Your task to perform on an android device: see tabs open on other devices in the chrome app Image 0: 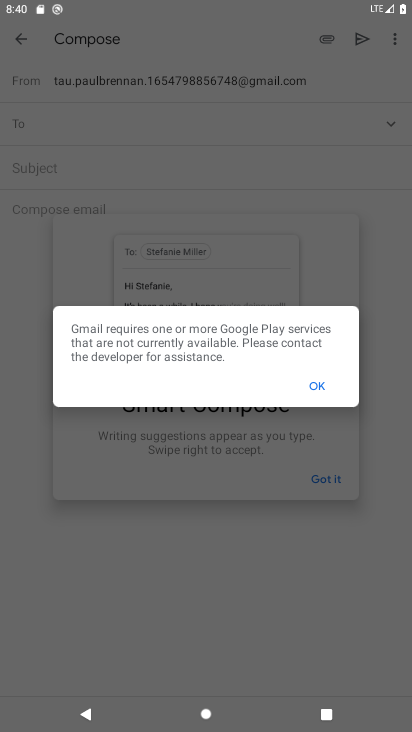
Step 0: press home button
Your task to perform on an android device: see tabs open on other devices in the chrome app Image 1: 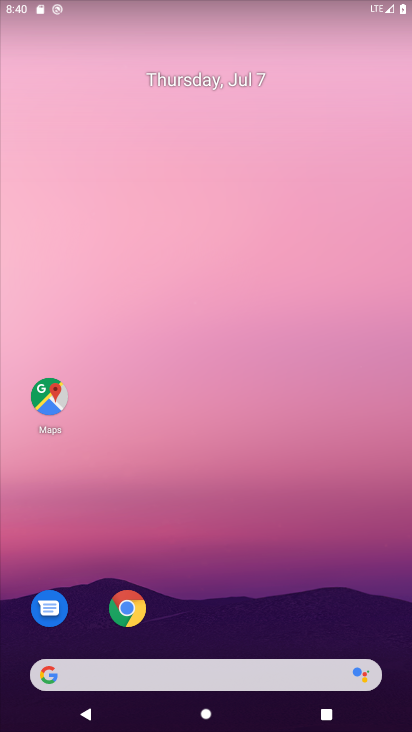
Step 1: drag from (369, 600) to (356, 142)
Your task to perform on an android device: see tabs open on other devices in the chrome app Image 2: 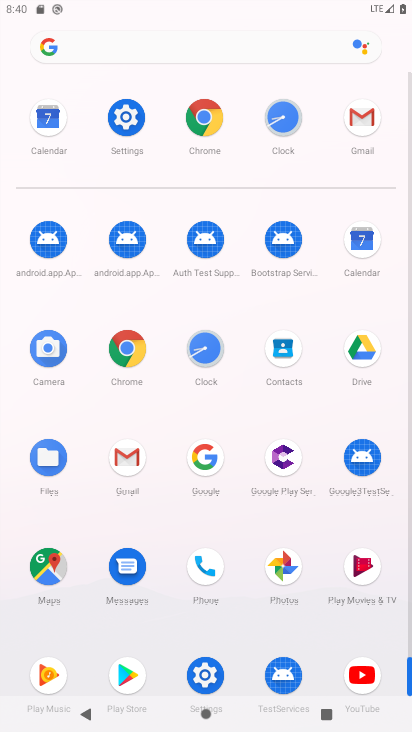
Step 2: click (136, 349)
Your task to perform on an android device: see tabs open on other devices in the chrome app Image 3: 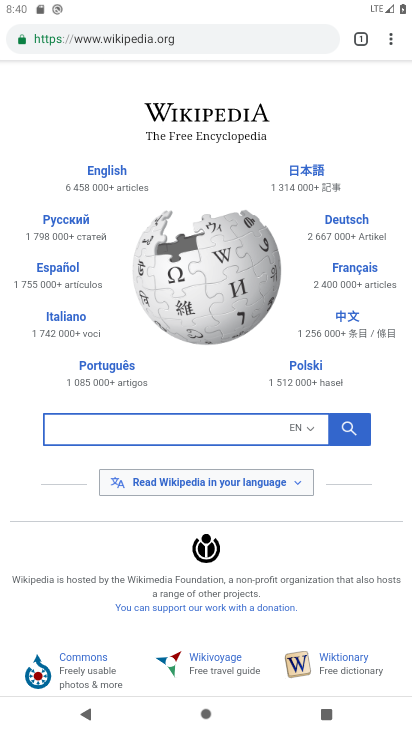
Step 3: click (389, 44)
Your task to perform on an android device: see tabs open on other devices in the chrome app Image 4: 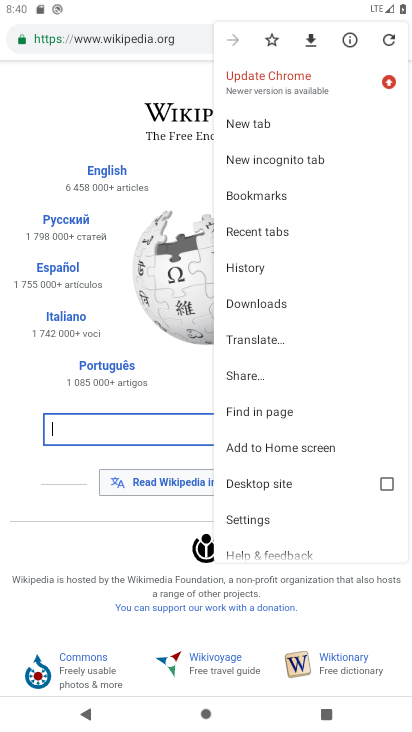
Step 4: click (289, 229)
Your task to perform on an android device: see tabs open on other devices in the chrome app Image 5: 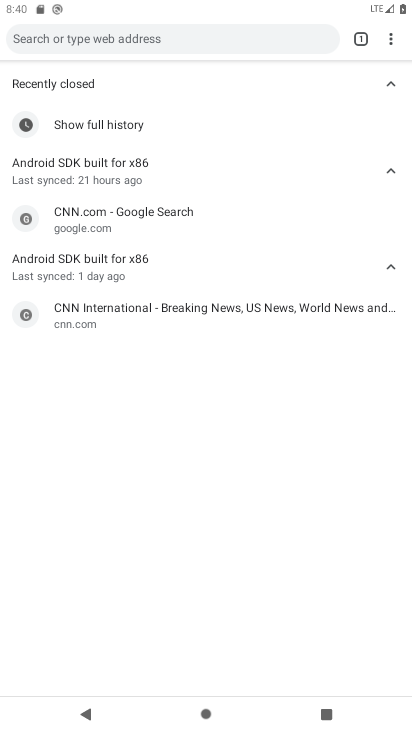
Step 5: click (356, 44)
Your task to perform on an android device: see tabs open on other devices in the chrome app Image 6: 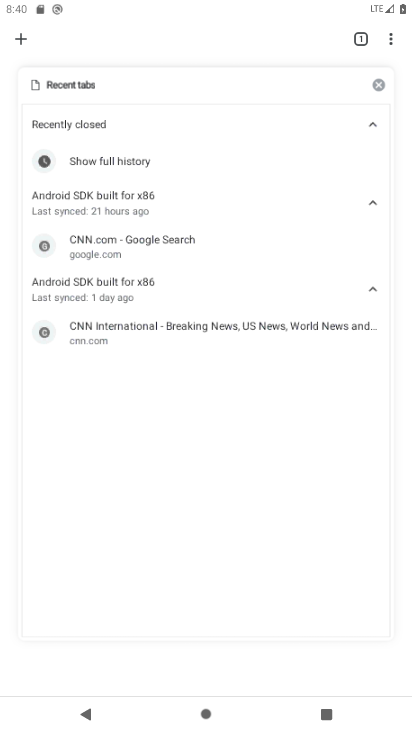
Step 6: task complete